Your task to perform on an android device: turn on improve location accuracy Image 0: 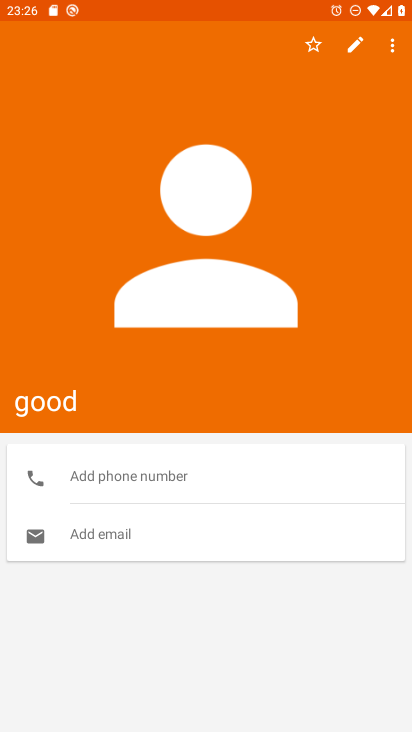
Step 0: press home button
Your task to perform on an android device: turn on improve location accuracy Image 1: 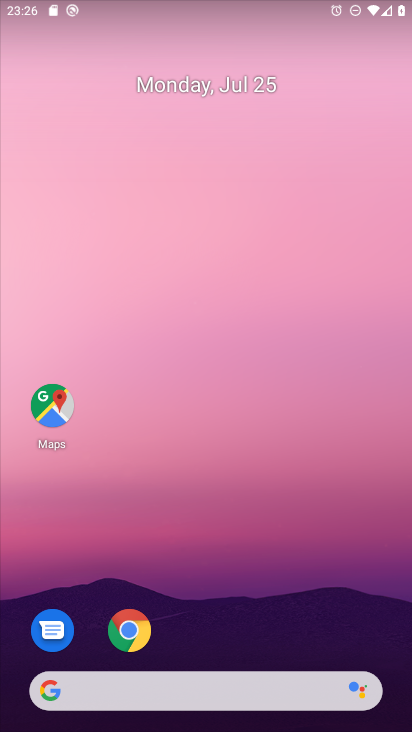
Step 1: drag from (307, 602) to (228, 0)
Your task to perform on an android device: turn on improve location accuracy Image 2: 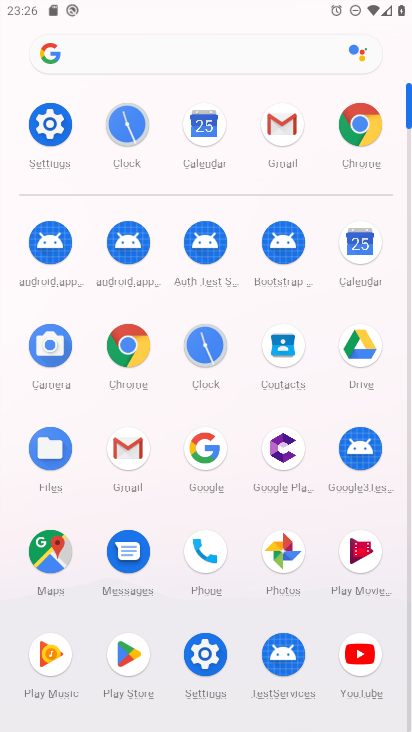
Step 2: click (47, 124)
Your task to perform on an android device: turn on improve location accuracy Image 3: 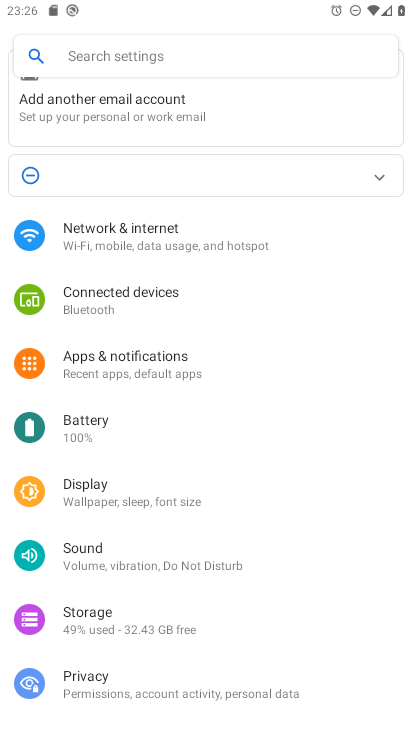
Step 3: drag from (238, 638) to (227, 260)
Your task to perform on an android device: turn on improve location accuracy Image 4: 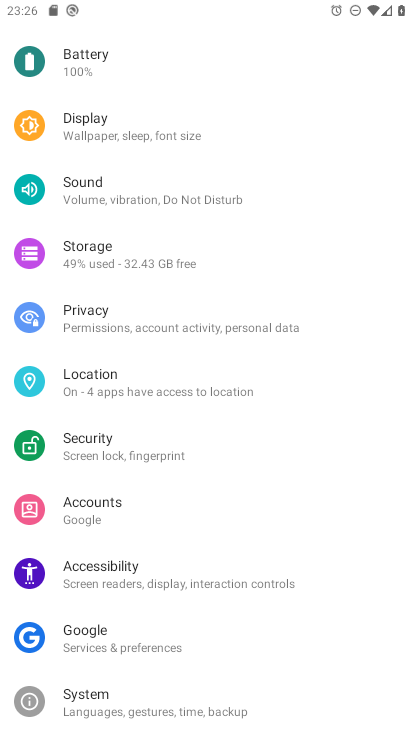
Step 4: click (115, 388)
Your task to perform on an android device: turn on improve location accuracy Image 5: 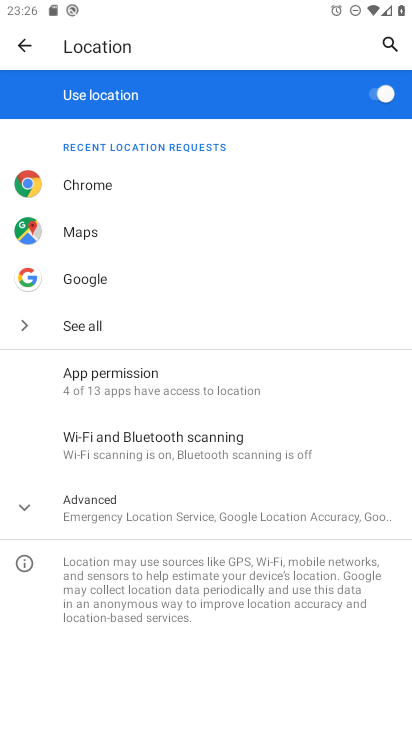
Step 5: click (160, 512)
Your task to perform on an android device: turn on improve location accuracy Image 6: 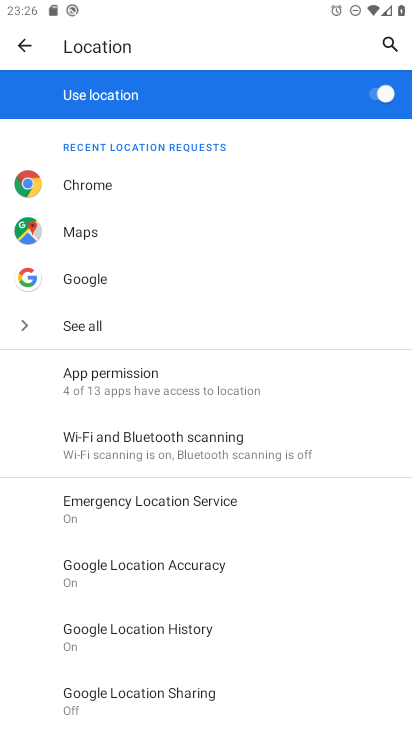
Step 6: click (204, 571)
Your task to perform on an android device: turn on improve location accuracy Image 7: 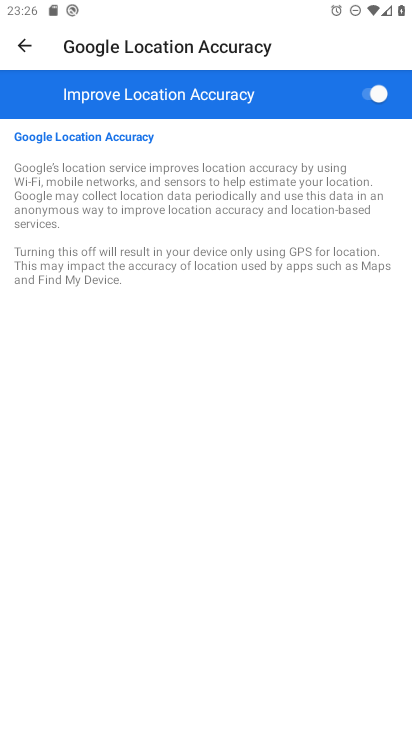
Step 7: task complete